Your task to perform on an android device: open a bookmark in the chrome app Image 0: 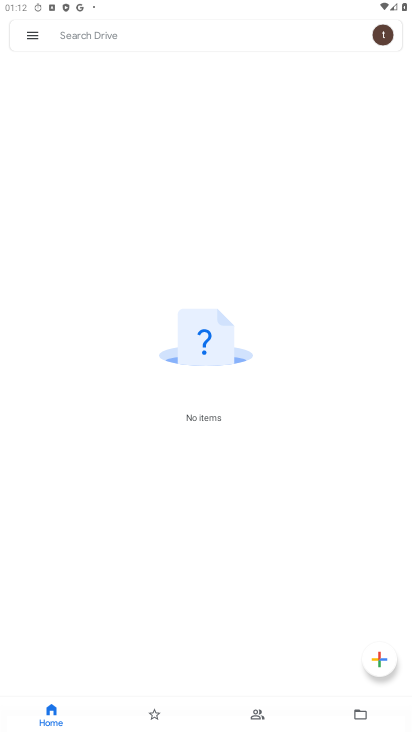
Step 0: press home button
Your task to perform on an android device: open a bookmark in the chrome app Image 1: 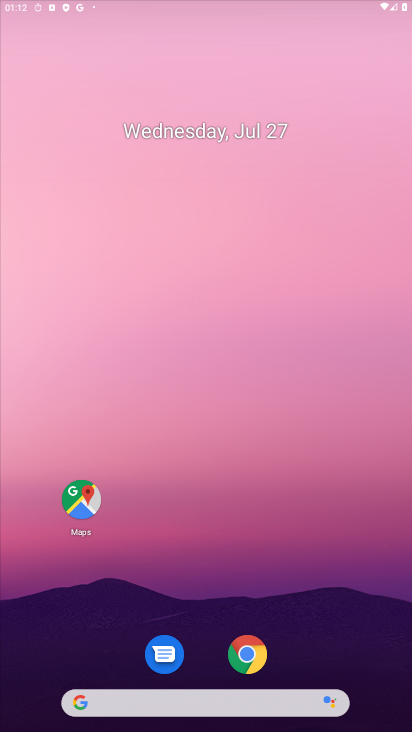
Step 1: drag from (213, 665) to (283, 9)
Your task to perform on an android device: open a bookmark in the chrome app Image 2: 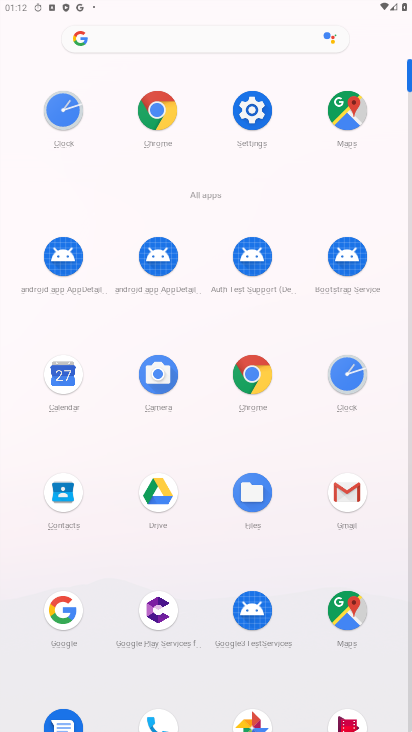
Step 2: click (253, 376)
Your task to perform on an android device: open a bookmark in the chrome app Image 3: 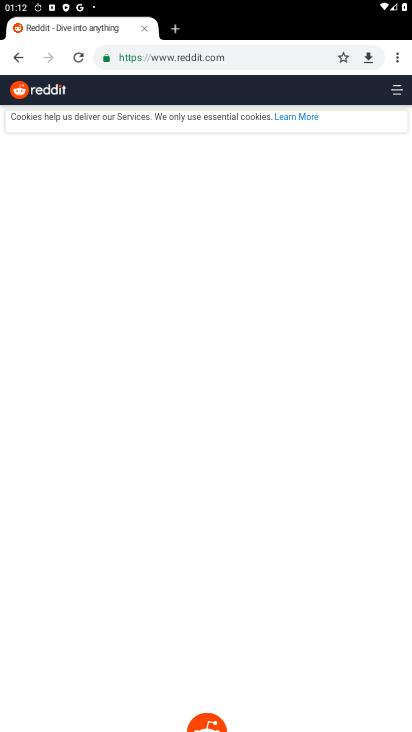
Step 3: task complete